Your task to perform on an android device: turn on sleep mode Image 0: 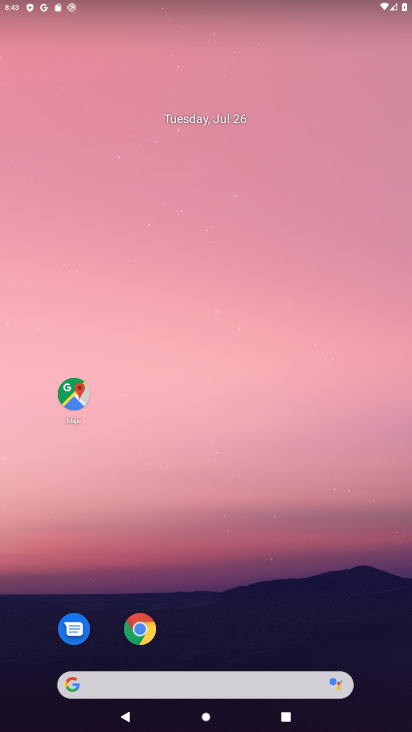
Step 0: drag from (275, 671) to (157, 168)
Your task to perform on an android device: turn on sleep mode Image 1: 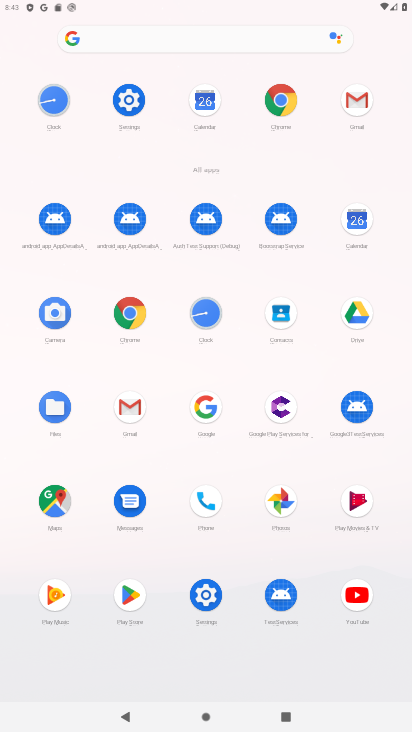
Step 1: click (138, 106)
Your task to perform on an android device: turn on sleep mode Image 2: 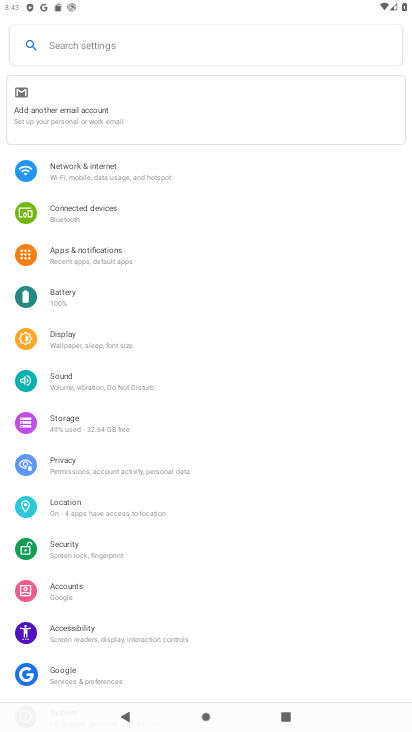
Step 2: click (60, 341)
Your task to perform on an android device: turn on sleep mode Image 3: 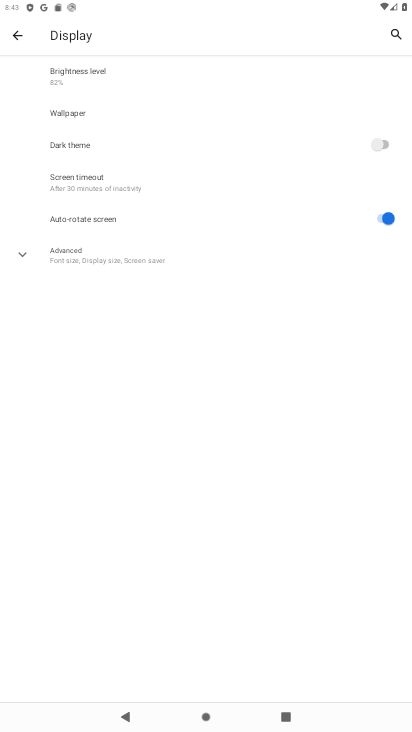
Step 3: task complete